Your task to perform on an android device: toggle wifi Image 0: 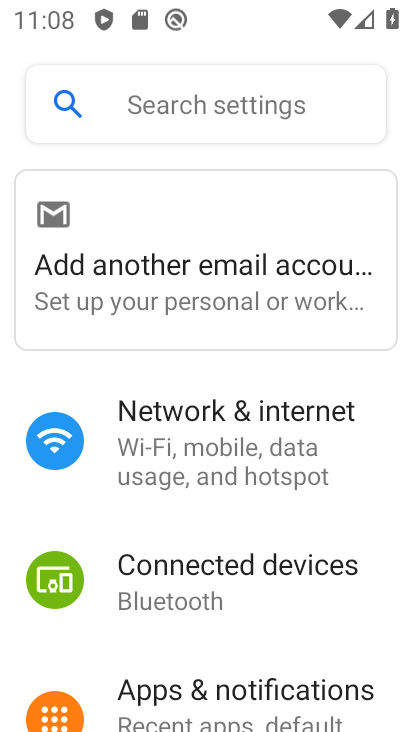
Step 0: click (228, 456)
Your task to perform on an android device: toggle wifi Image 1: 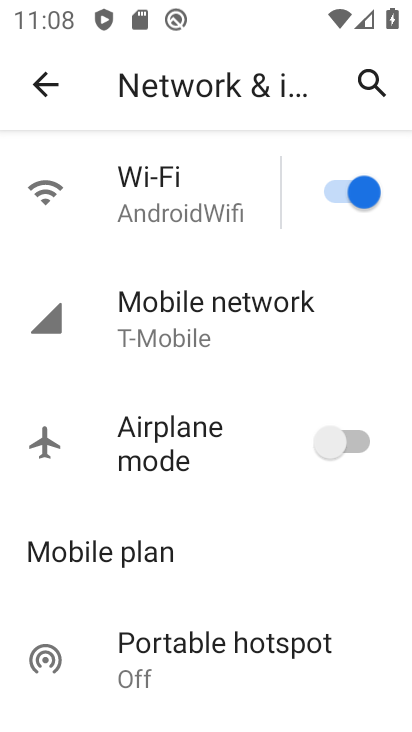
Step 1: click (346, 188)
Your task to perform on an android device: toggle wifi Image 2: 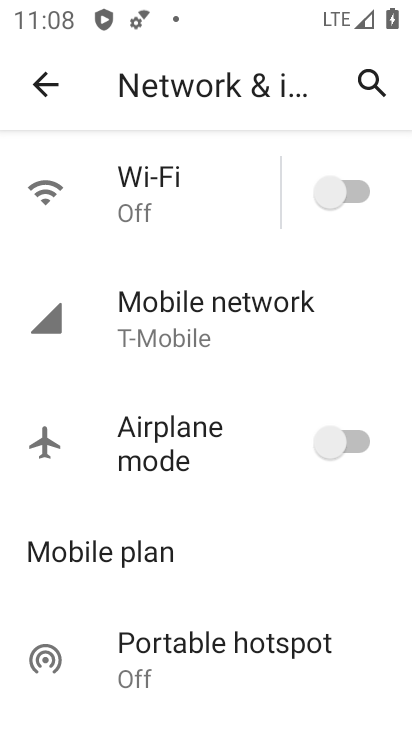
Step 2: task complete